Your task to perform on an android device: Clear the cart on bestbuy.com. Search for lg ultragear on bestbuy.com, select the first entry, add it to the cart, then select checkout. Image 0: 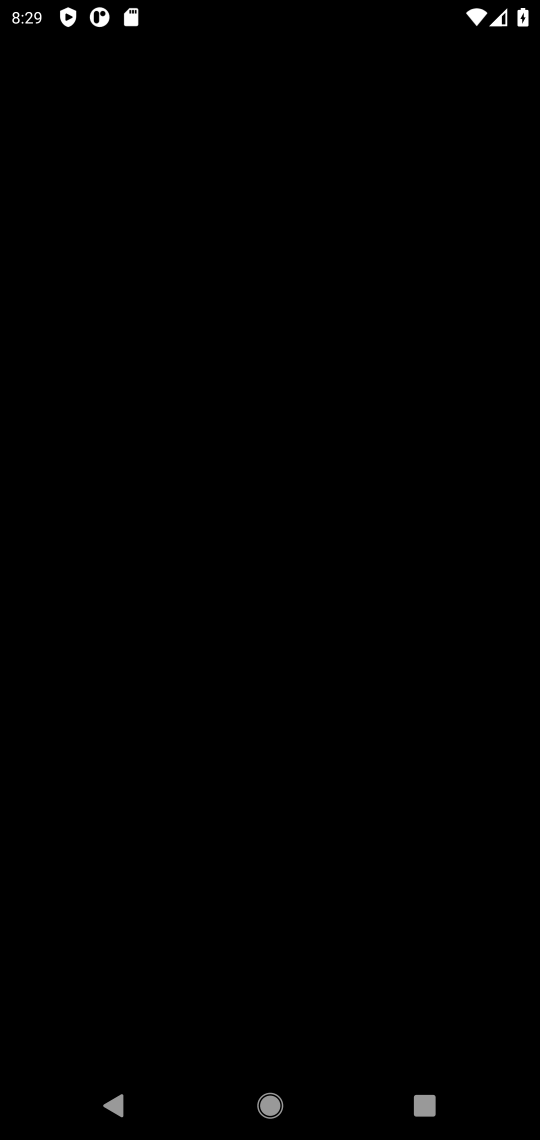
Step 0: press home button
Your task to perform on an android device: Clear the cart on bestbuy.com. Search for lg ultragear on bestbuy.com, select the first entry, add it to the cart, then select checkout. Image 1: 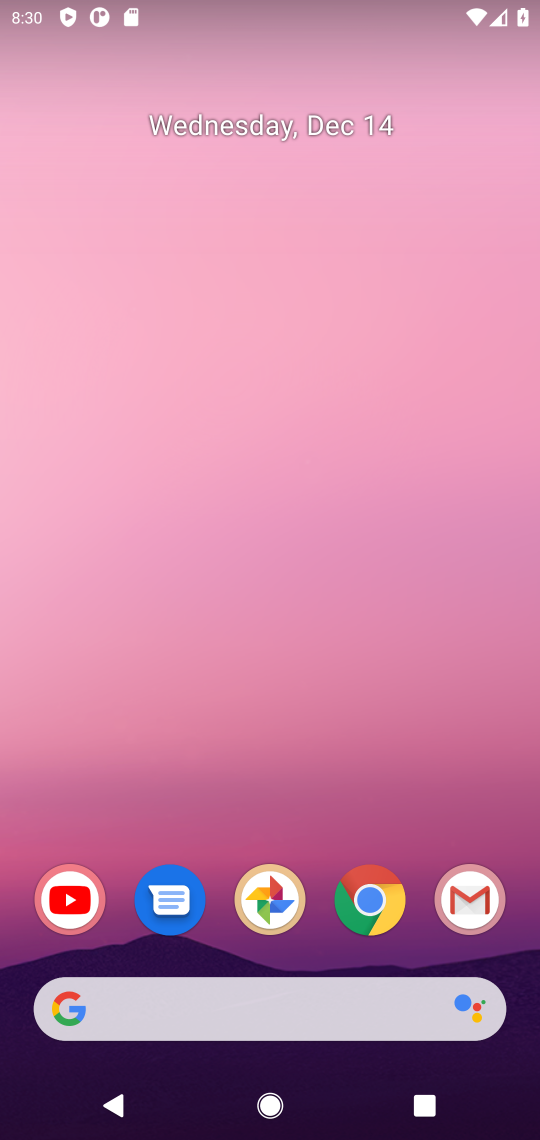
Step 1: click (283, 1015)
Your task to perform on an android device: Clear the cart on bestbuy.com. Search for lg ultragear on bestbuy.com, select the first entry, add it to the cart, then select checkout. Image 2: 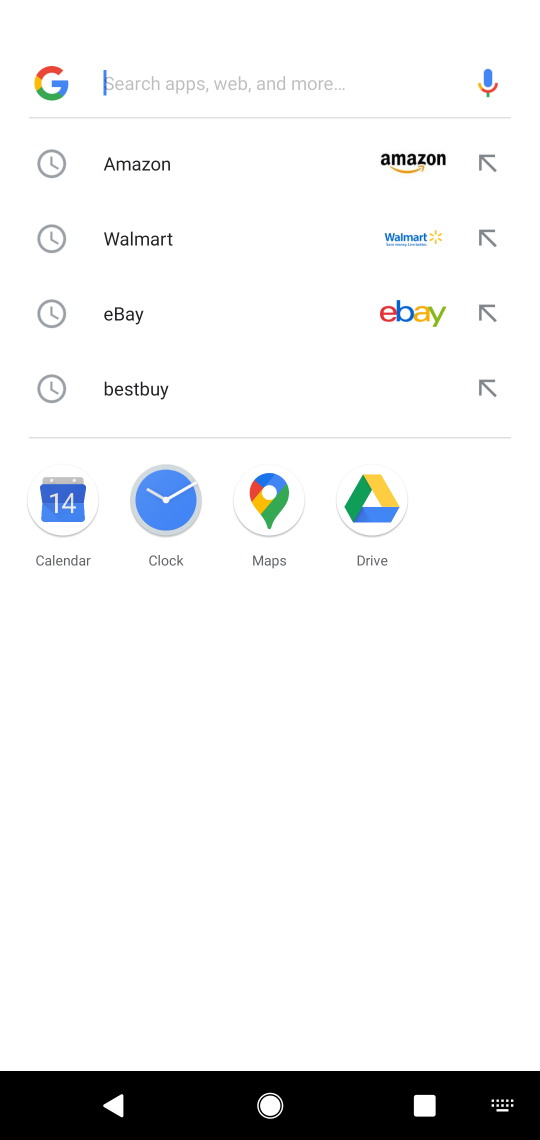
Step 2: type " bestbuy.com"
Your task to perform on an android device: Clear the cart on bestbuy.com. Search for lg ultragear on bestbuy.com, select the first entry, add it to the cart, then select checkout. Image 3: 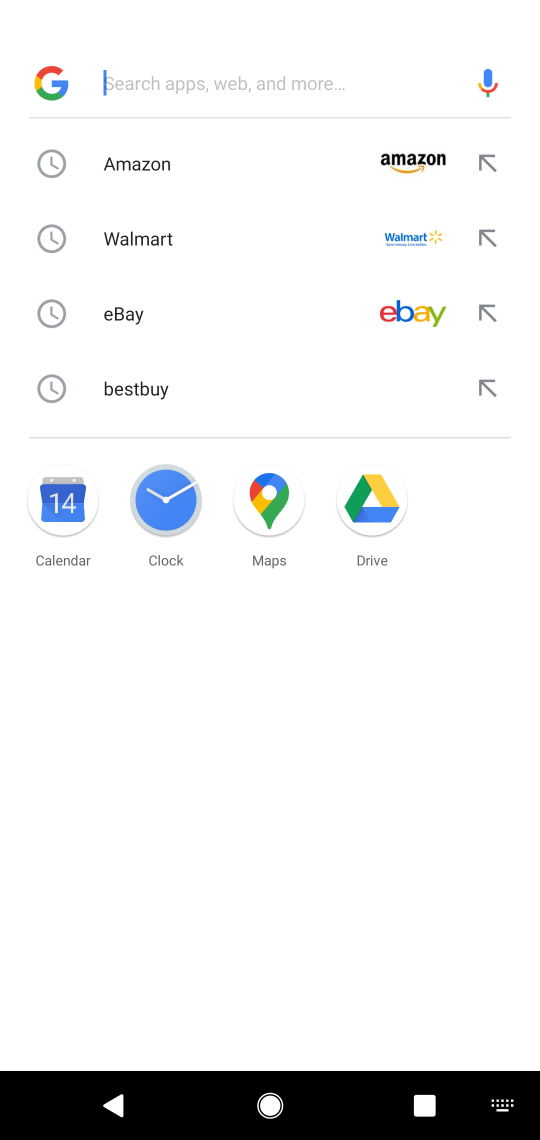
Step 3: click (120, 395)
Your task to perform on an android device: Clear the cart on bestbuy.com. Search for lg ultragear on bestbuy.com, select the first entry, add it to the cart, then select checkout. Image 4: 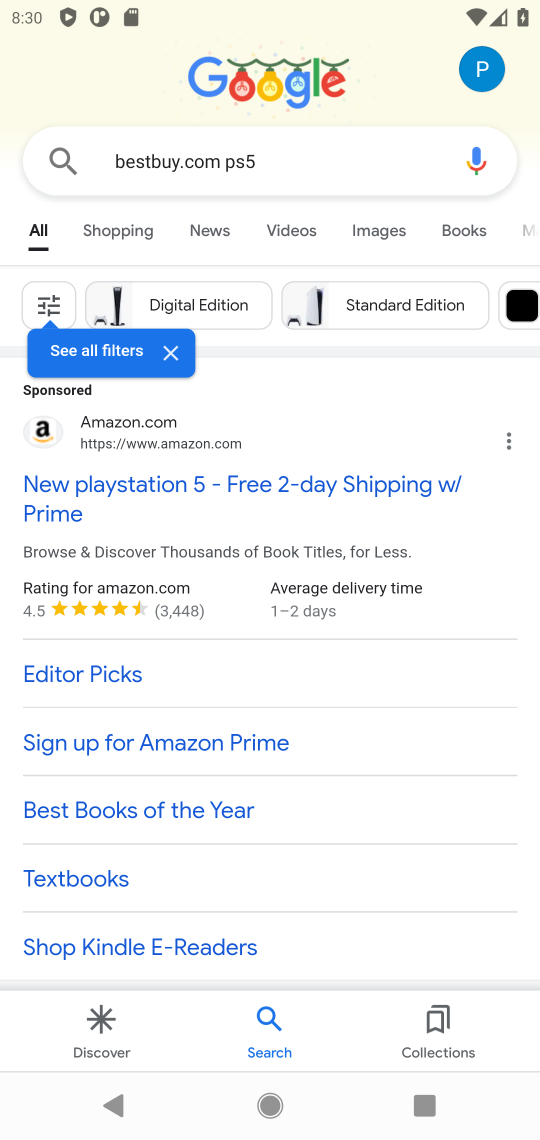
Step 4: click (308, 164)
Your task to perform on an android device: Clear the cart on bestbuy.com. Search for lg ultragear on bestbuy.com, select the first entry, add it to the cart, then select checkout. Image 5: 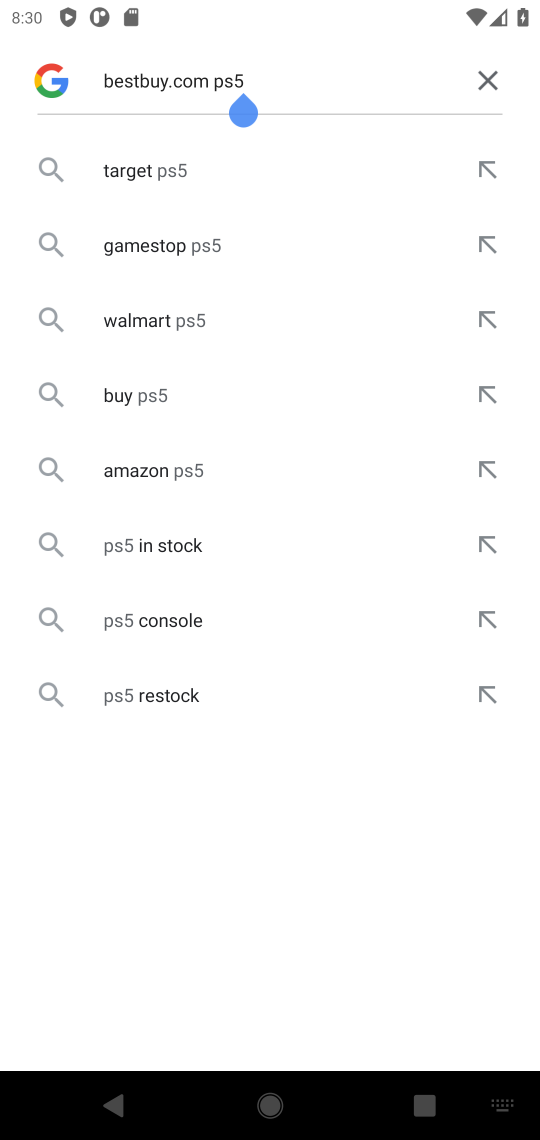
Step 5: click (493, 84)
Your task to perform on an android device: Clear the cart on bestbuy.com. Search for lg ultragear on bestbuy.com, select the first entry, add it to the cart, then select checkout. Image 6: 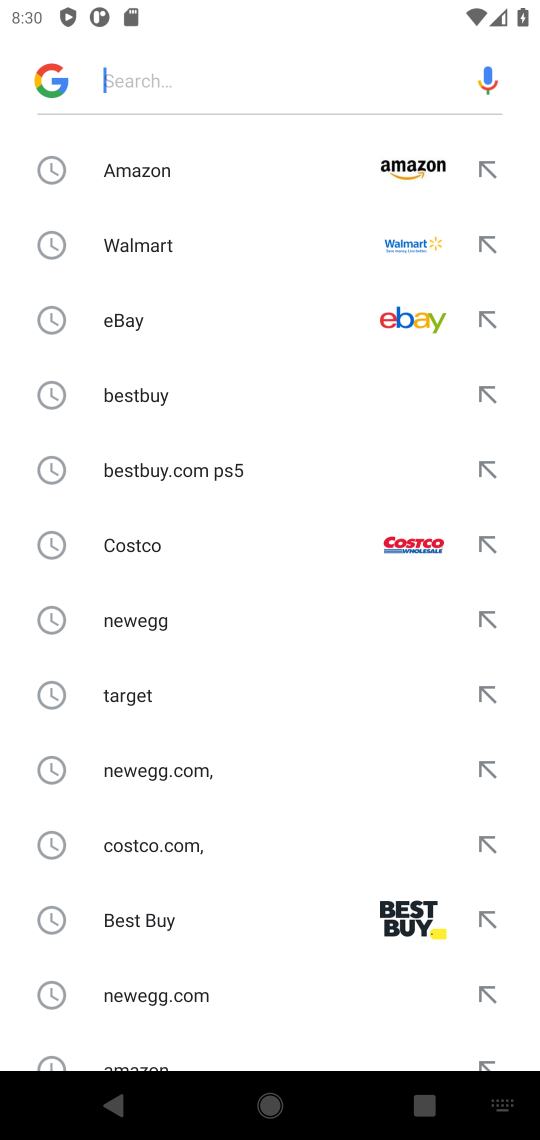
Step 6: click (166, 930)
Your task to perform on an android device: Clear the cart on bestbuy.com. Search for lg ultragear on bestbuy.com, select the first entry, add it to the cart, then select checkout. Image 7: 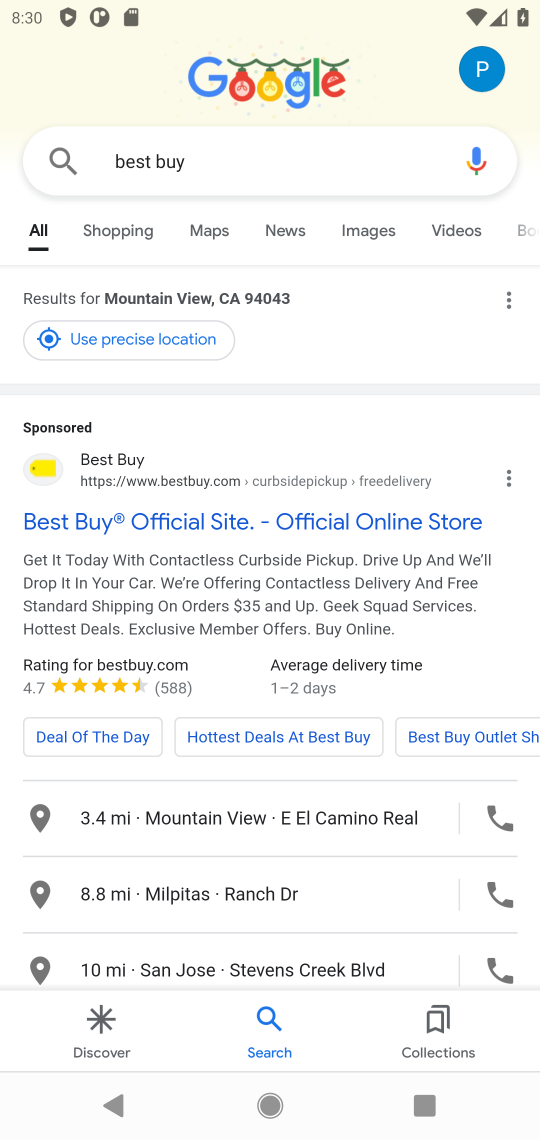
Step 7: click (177, 527)
Your task to perform on an android device: Clear the cart on bestbuy.com. Search for lg ultragear on bestbuy.com, select the first entry, add it to the cart, then select checkout. Image 8: 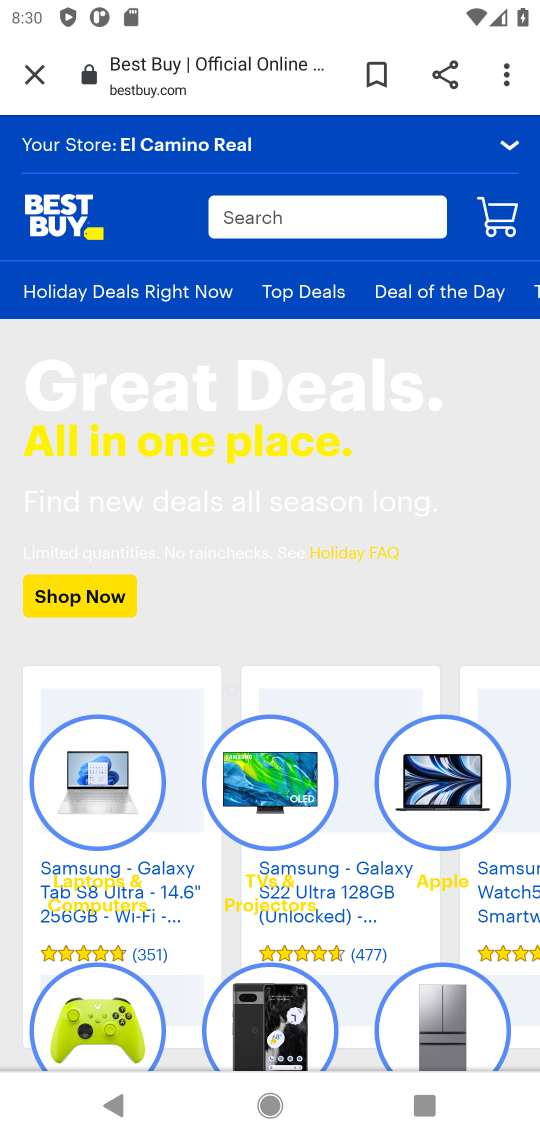
Step 8: click (494, 226)
Your task to perform on an android device: Clear the cart on bestbuy.com. Search for lg ultragear on bestbuy.com, select the first entry, add it to the cart, then select checkout. Image 9: 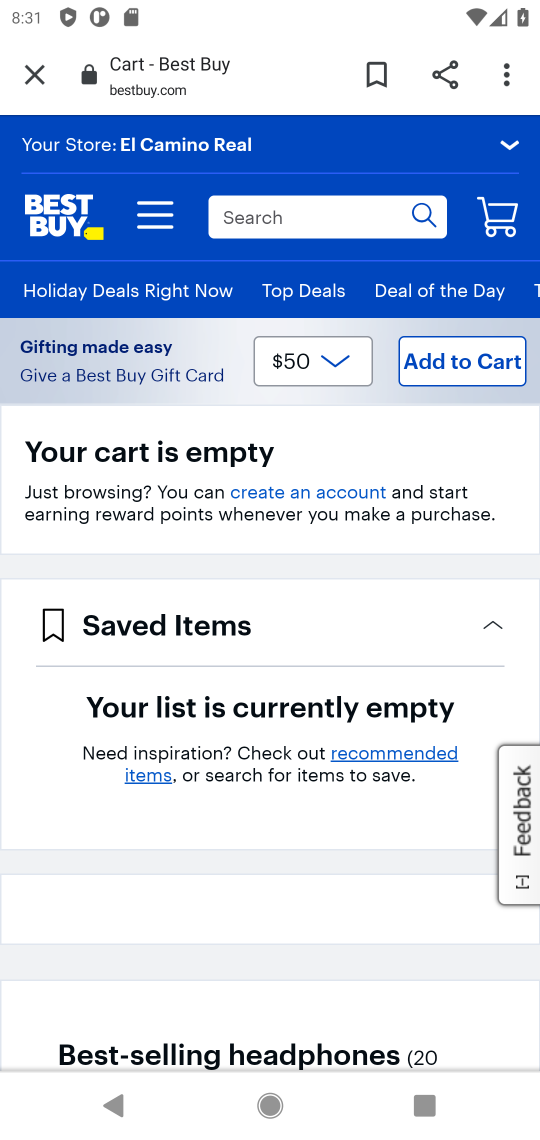
Step 9: click (270, 231)
Your task to perform on an android device: Clear the cart on bestbuy.com. Search for lg ultragear on bestbuy.com, select the first entry, add it to the cart, then select checkout. Image 10: 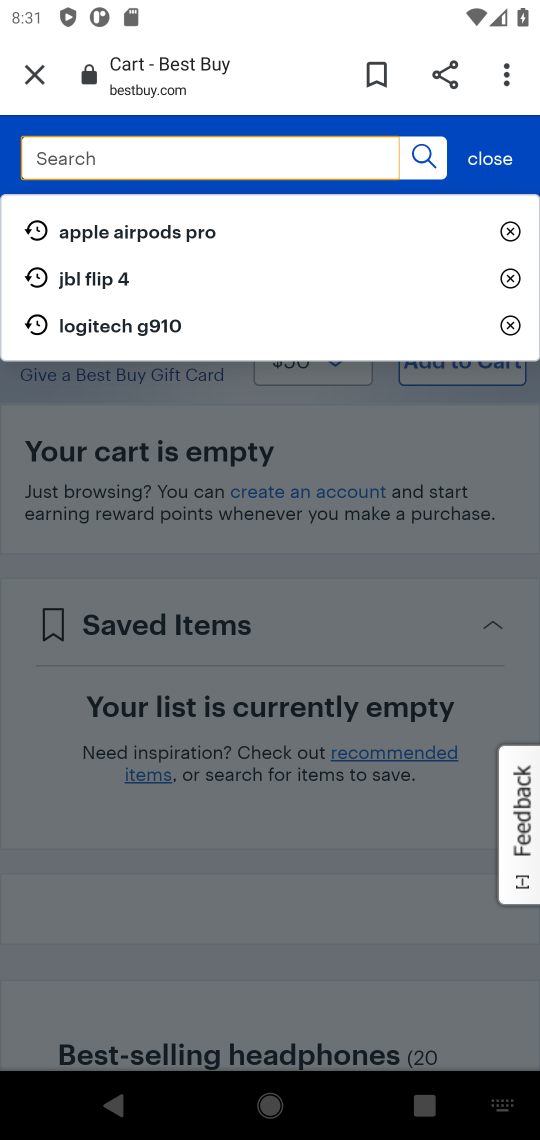
Step 10: type "lg ultragear "
Your task to perform on an android device: Clear the cart on bestbuy.com. Search for lg ultragear on bestbuy.com, select the first entry, add it to the cart, then select checkout. Image 11: 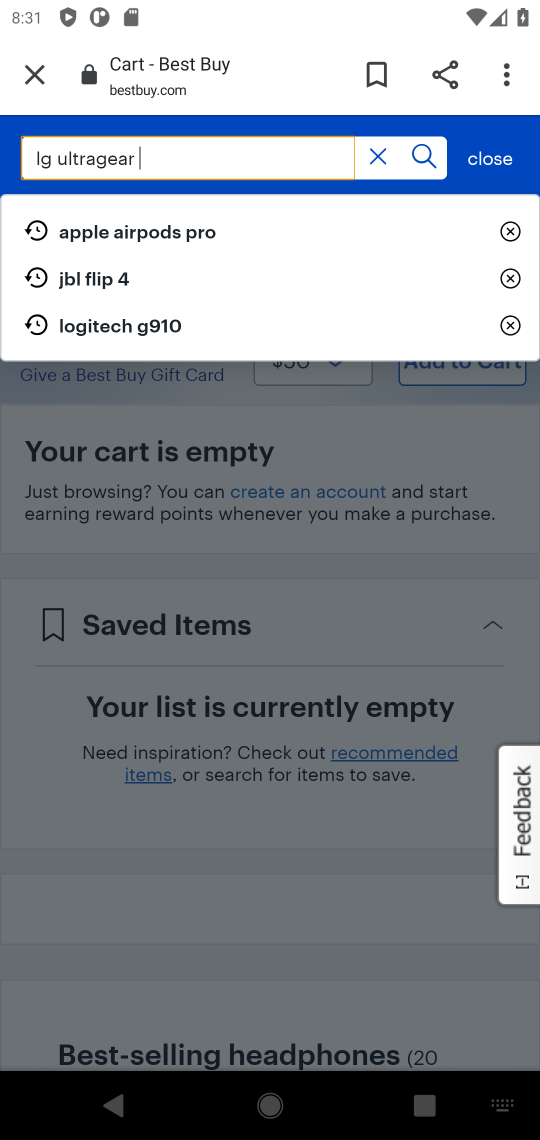
Step 11: type ""
Your task to perform on an android device: Clear the cart on bestbuy.com. Search for lg ultragear on bestbuy.com, select the first entry, add it to the cart, then select checkout. Image 12: 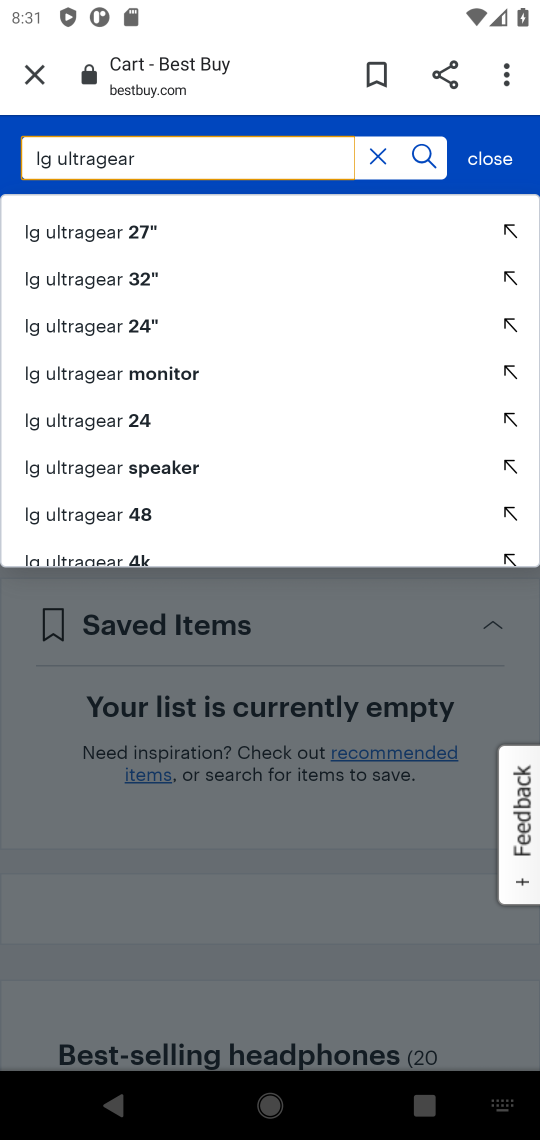
Step 12: click (120, 235)
Your task to perform on an android device: Clear the cart on bestbuy.com. Search for lg ultragear on bestbuy.com, select the first entry, add it to the cart, then select checkout. Image 13: 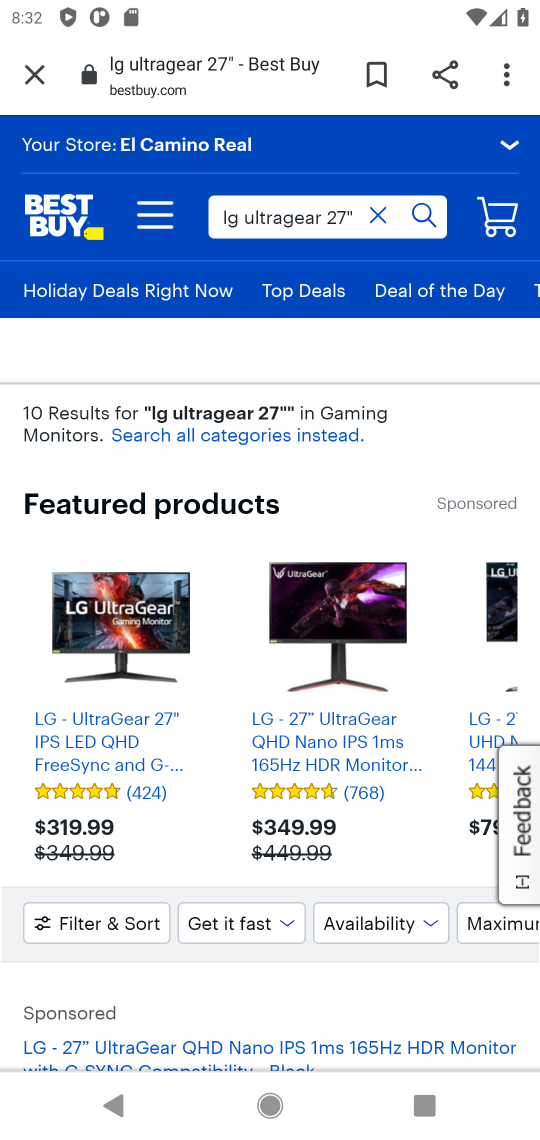
Step 13: click (95, 712)
Your task to perform on an android device: Clear the cart on bestbuy.com. Search for lg ultragear on bestbuy.com, select the first entry, add it to the cart, then select checkout. Image 14: 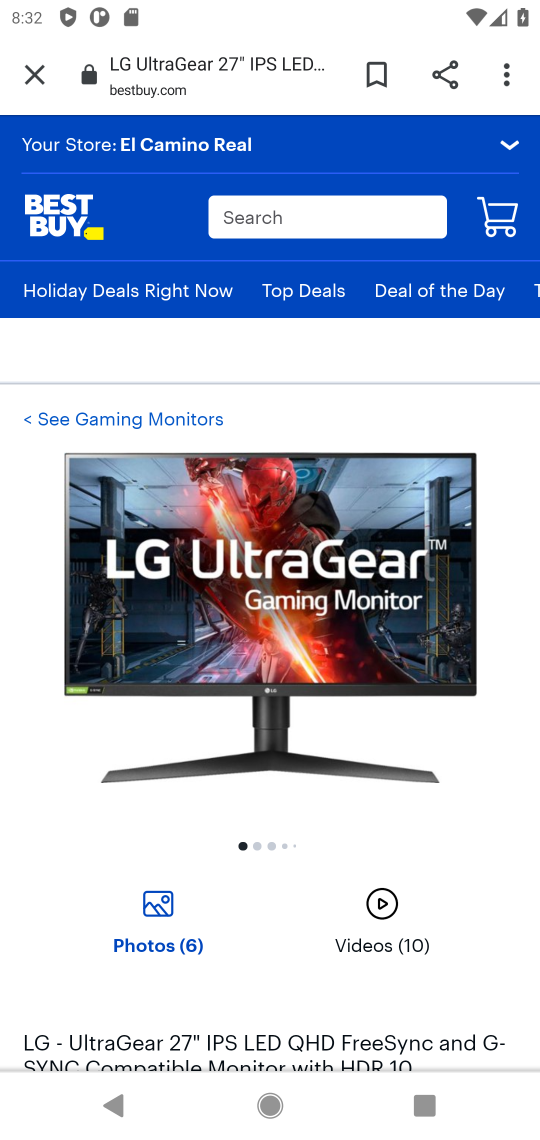
Step 14: task complete